Your task to perform on an android device: Go to accessibility settings Image 0: 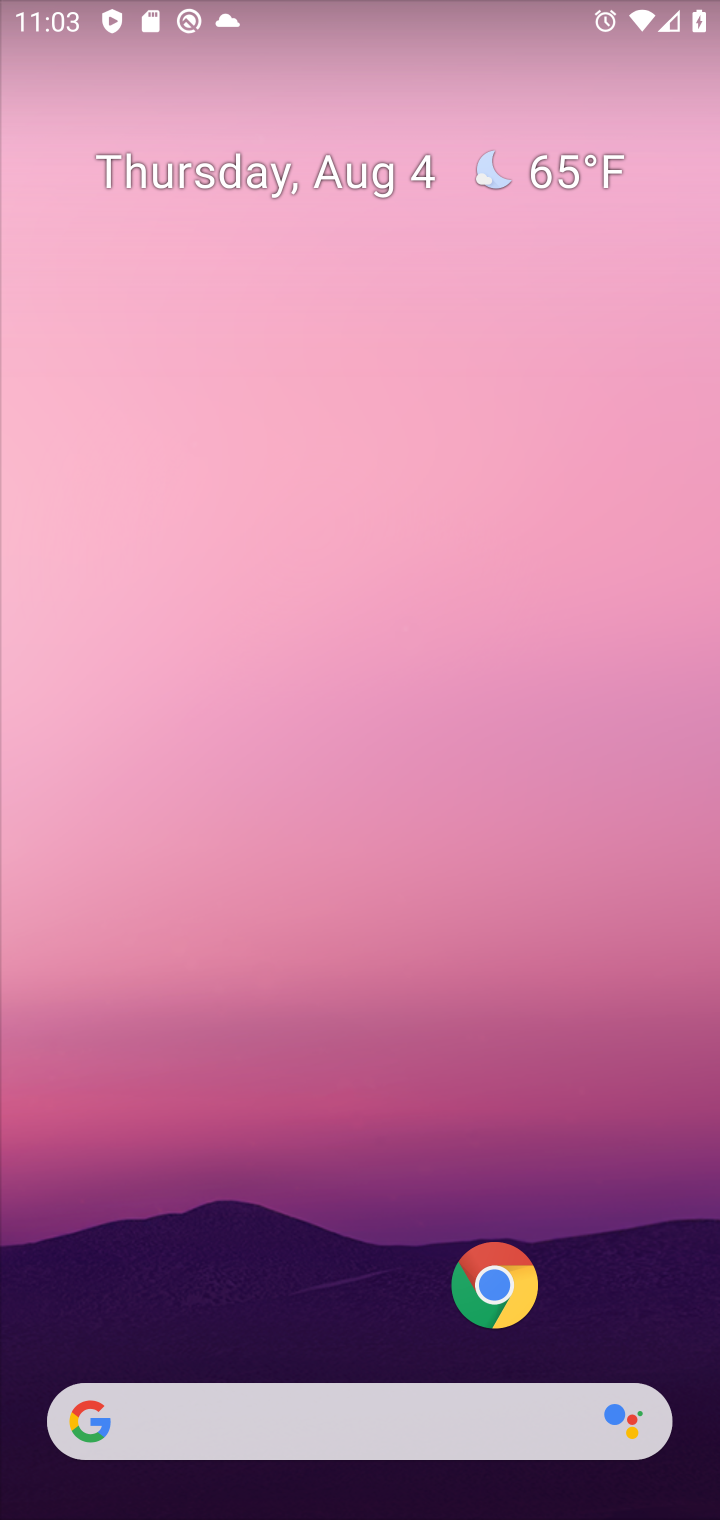
Step 0: press home button
Your task to perform on an android device: Go to accessibility settings Image 1: 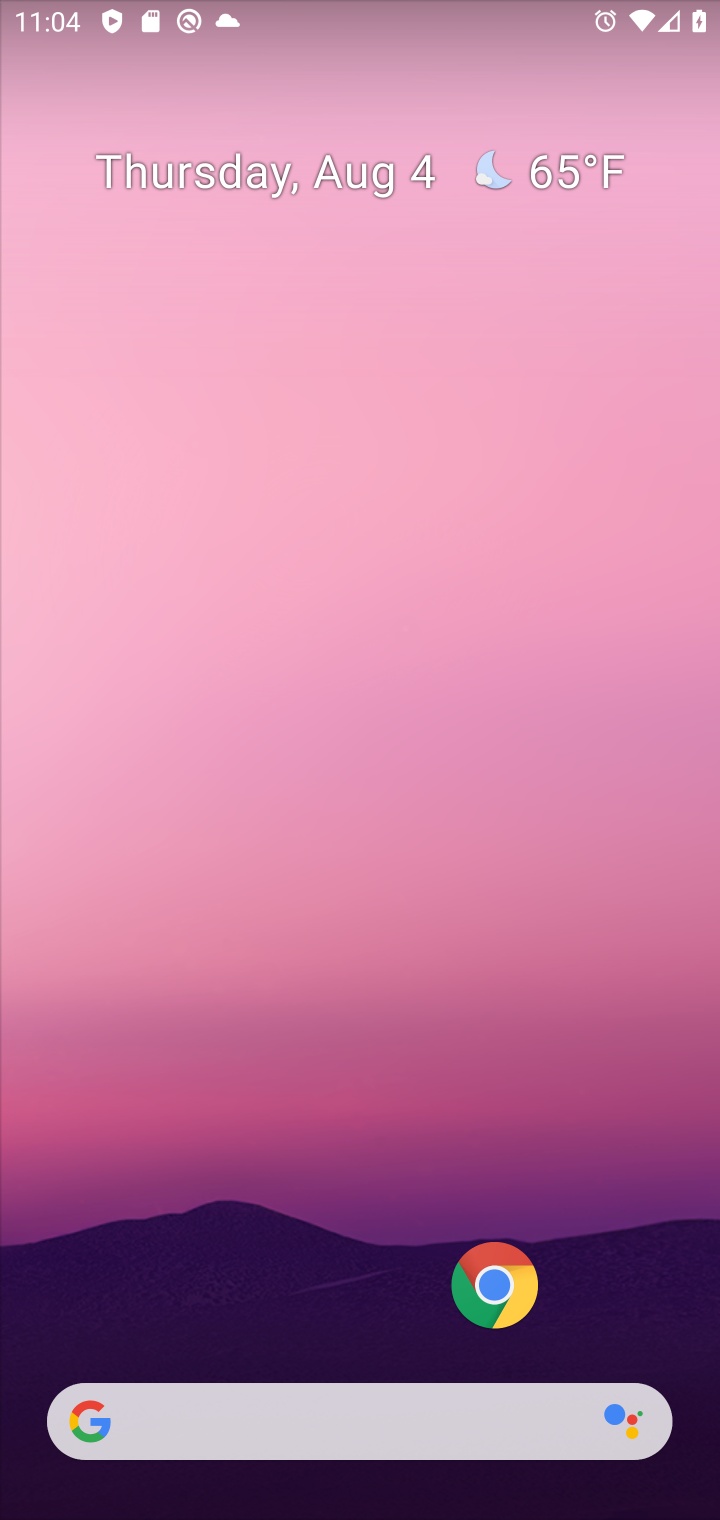
Step 1: drag from (224, 1325) to (255, 483)
Your task to perform on an android device: Go to accessibility settings Image 2: 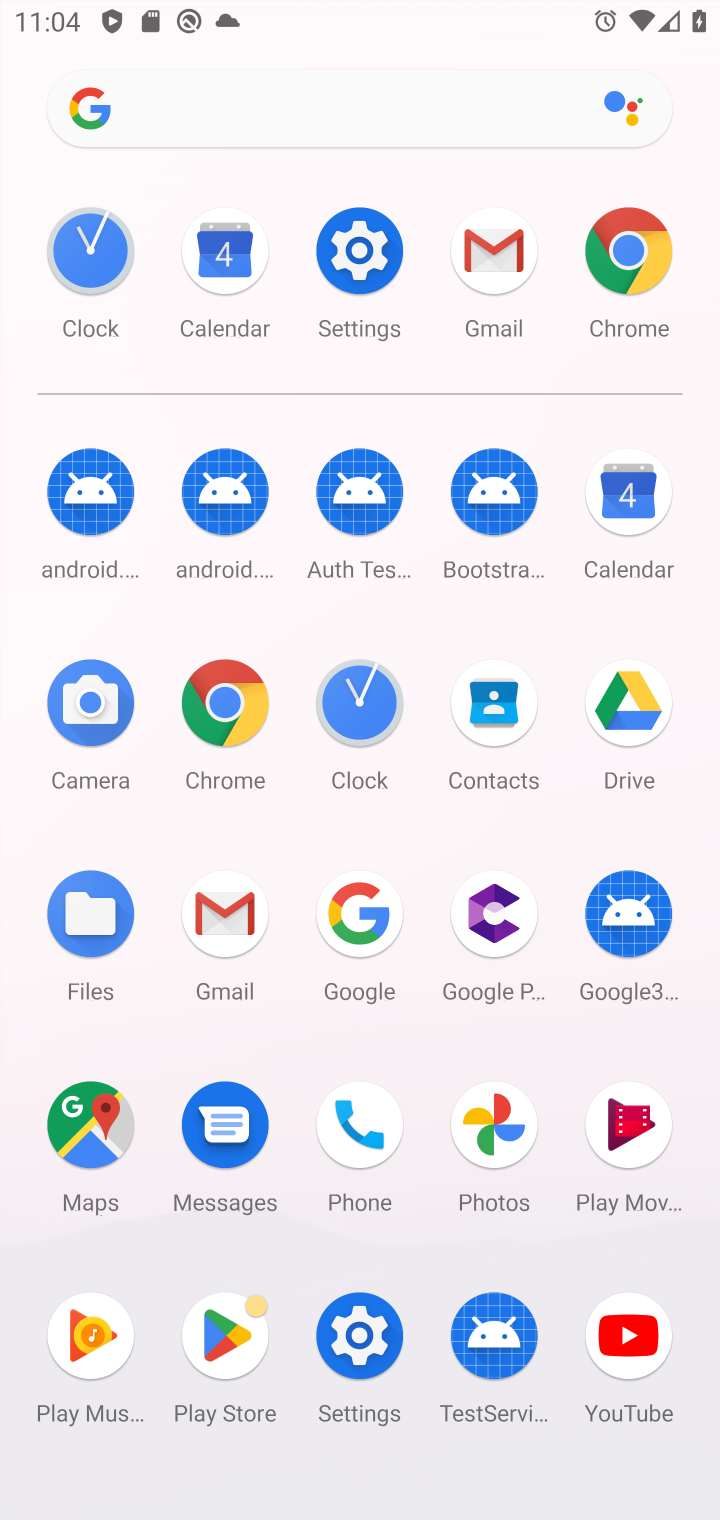
Step 2: click (356, 1363)
Your task to perform on an android device: Go to accessibility settings Image 3: 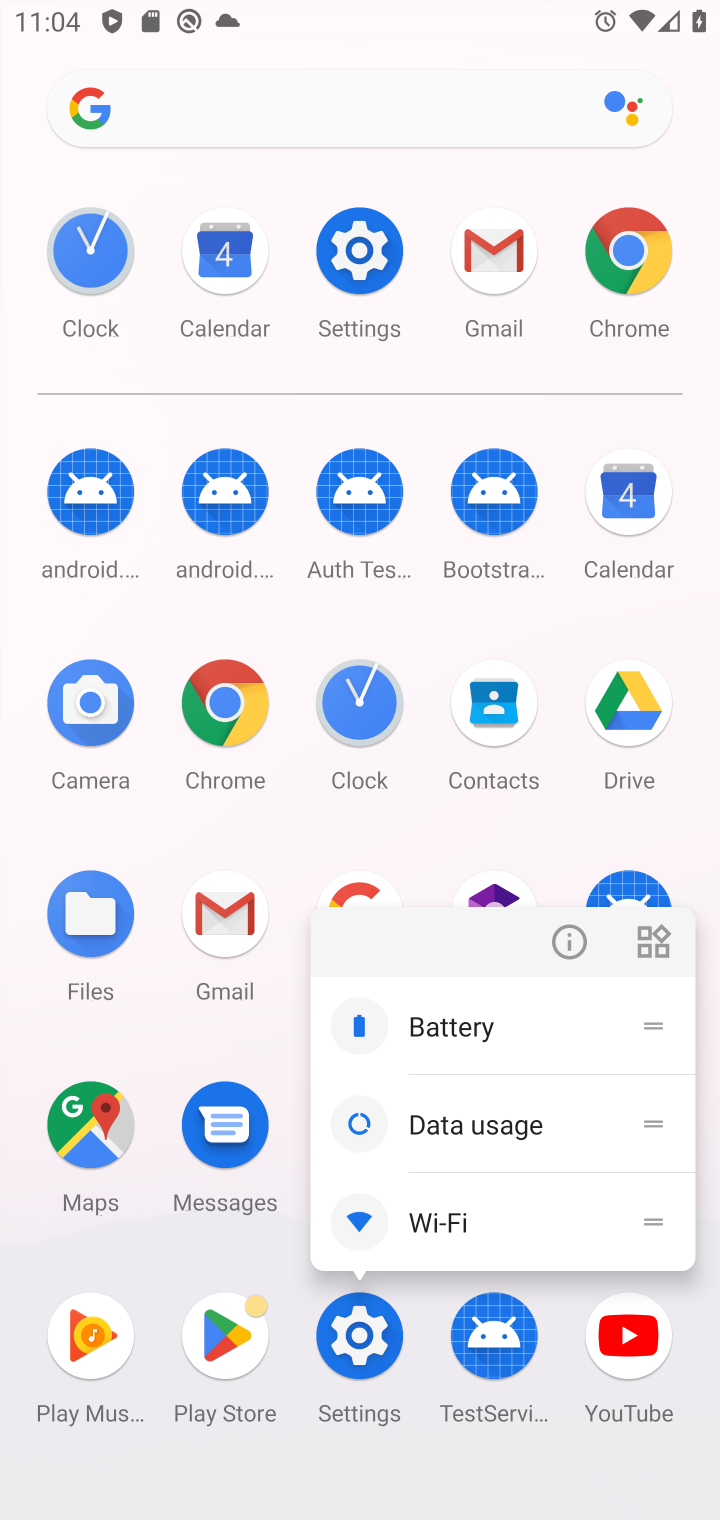
Step 3: click (387, 1317)
Your task to perform on an android device: Go to accessibility settings Image 4: 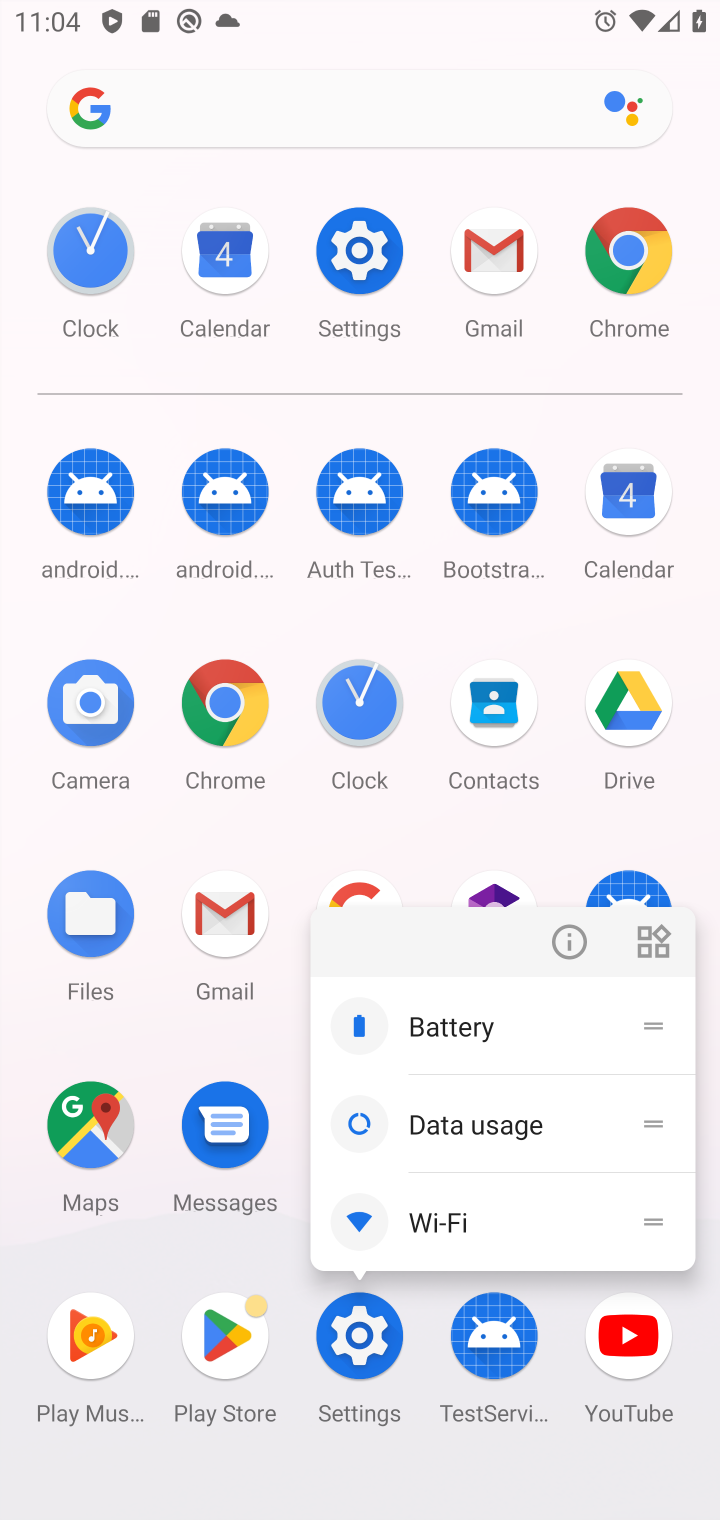
Step 4: click (387, 1317)
Your task to perform on an android device: Go to accessibility settings Image 5: 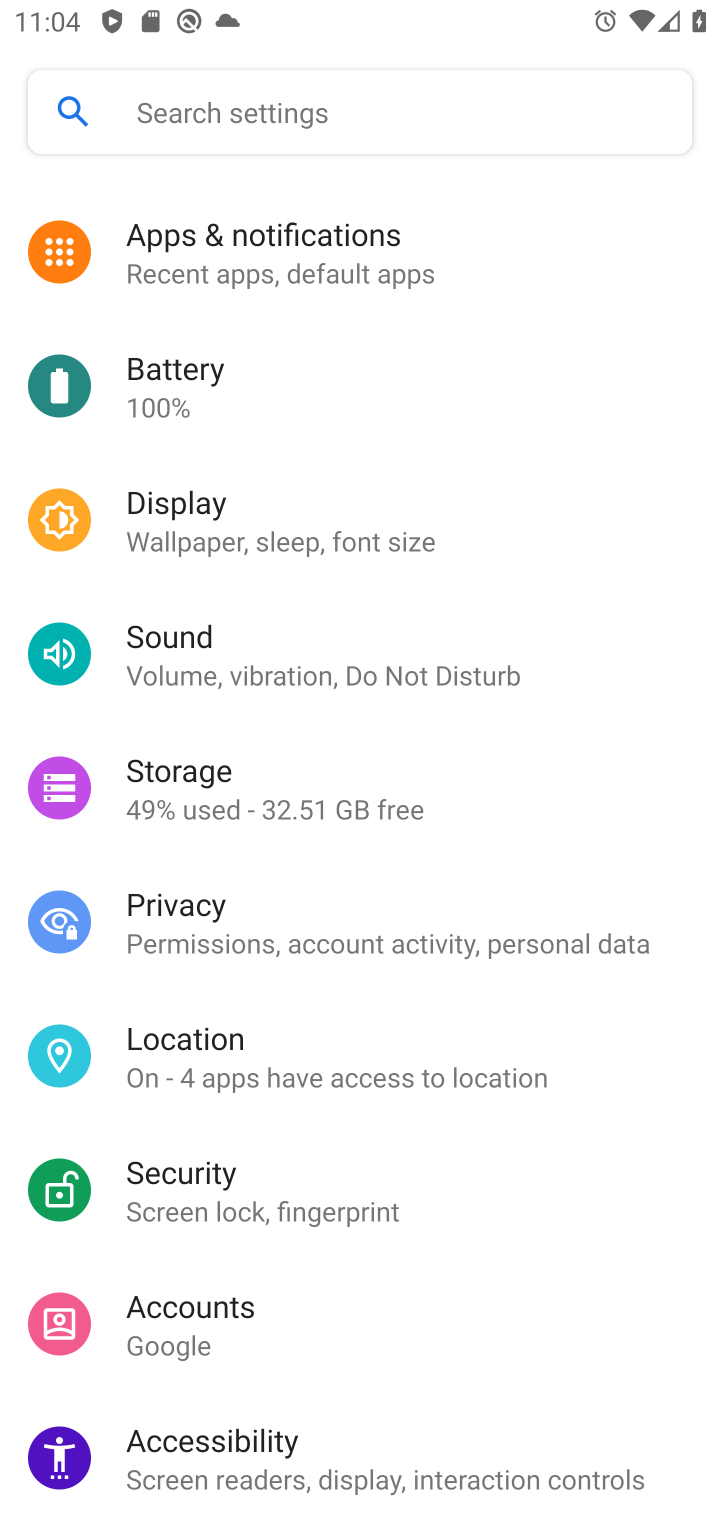
Step 5: click (336, 1382)
Your task to perform on an android device: Go to accessibility settings Image 6: 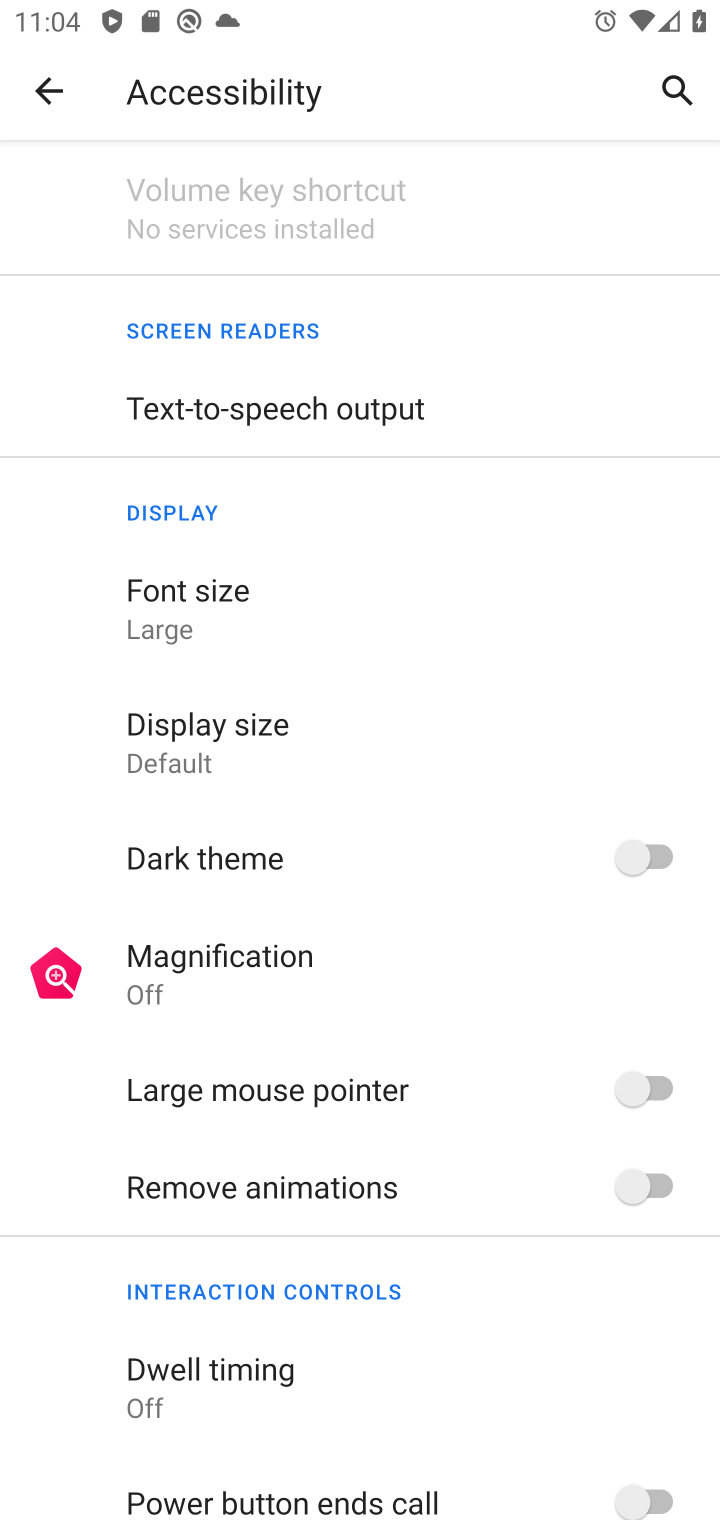
Step 6: task complete